Your task to perform on an android device: Search for the best-rated coffee table on Crate & Barrel Image 0: 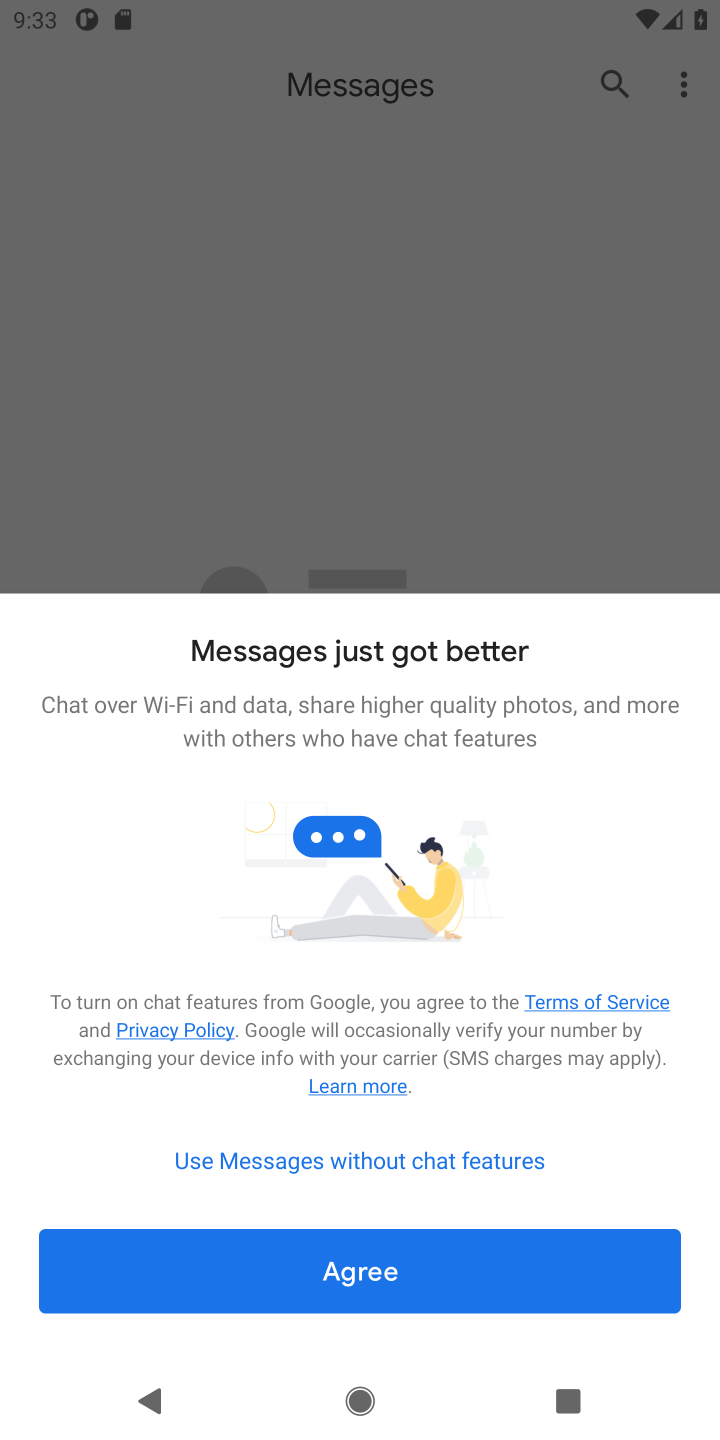
Step 0: press home button
Your task to perform on an android device: Search for the best-rated coffee table on Crate & Barrel Image 1: 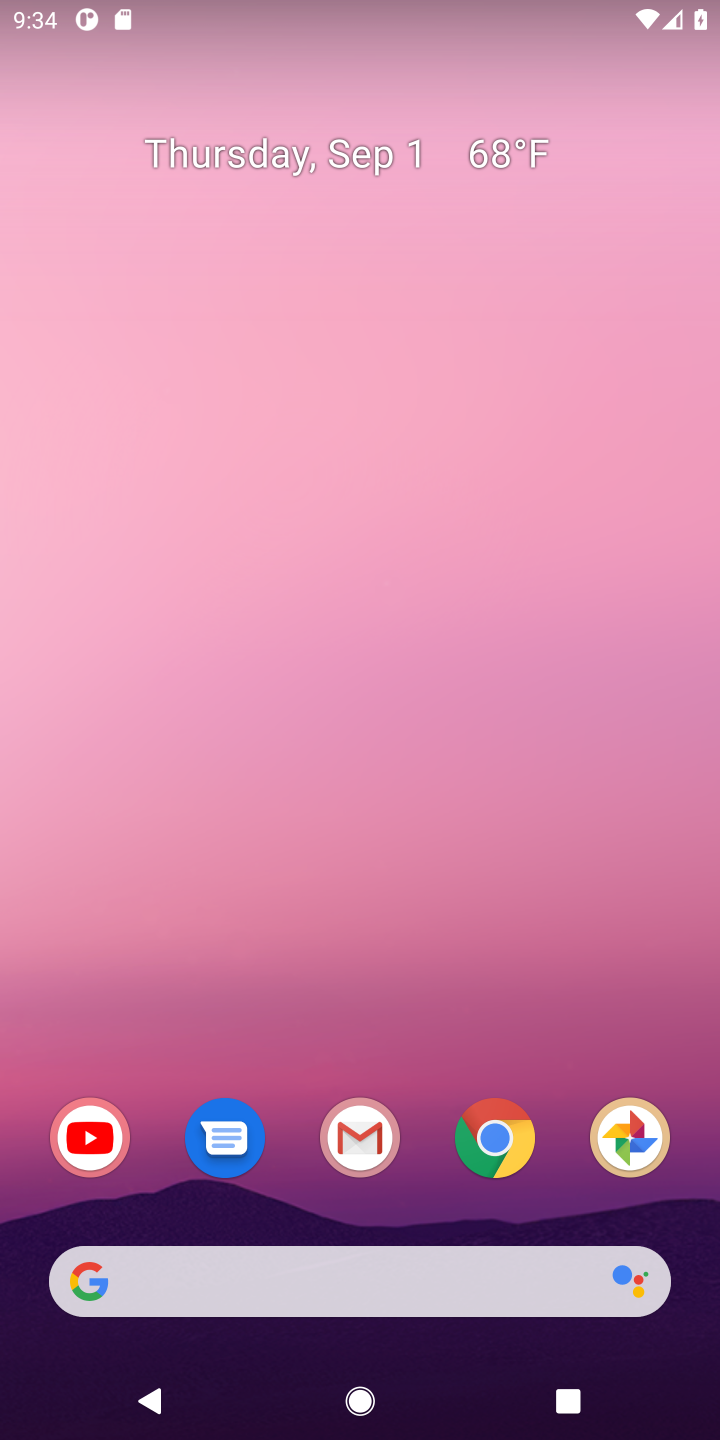
Step 1: click (504, 1133)
Your task to perform on an android device: Search for the best-rated coffee table on Crate & Barrel Image 2: 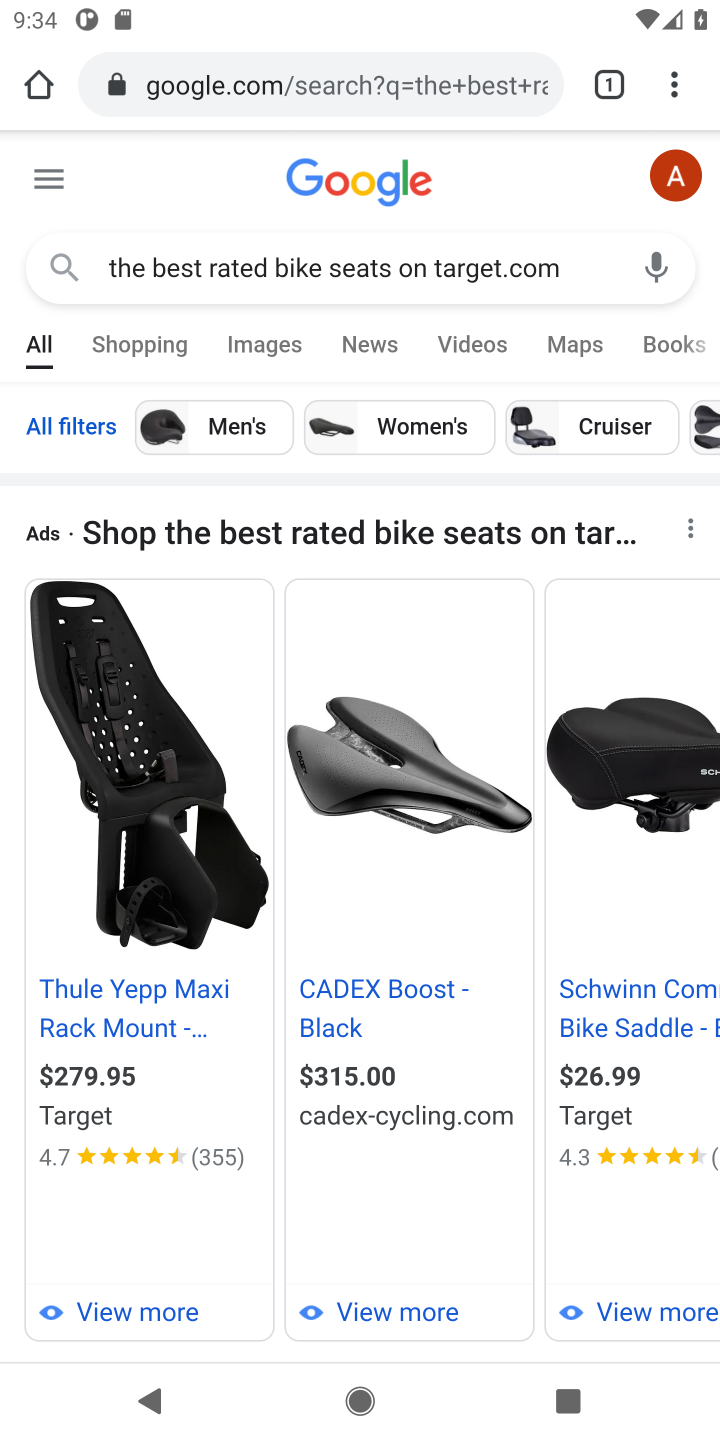
Step 2: click (104, 338)
Your task to perform on an android device: Search for the best-rated coffee table on Crate & Barrel Image 3: 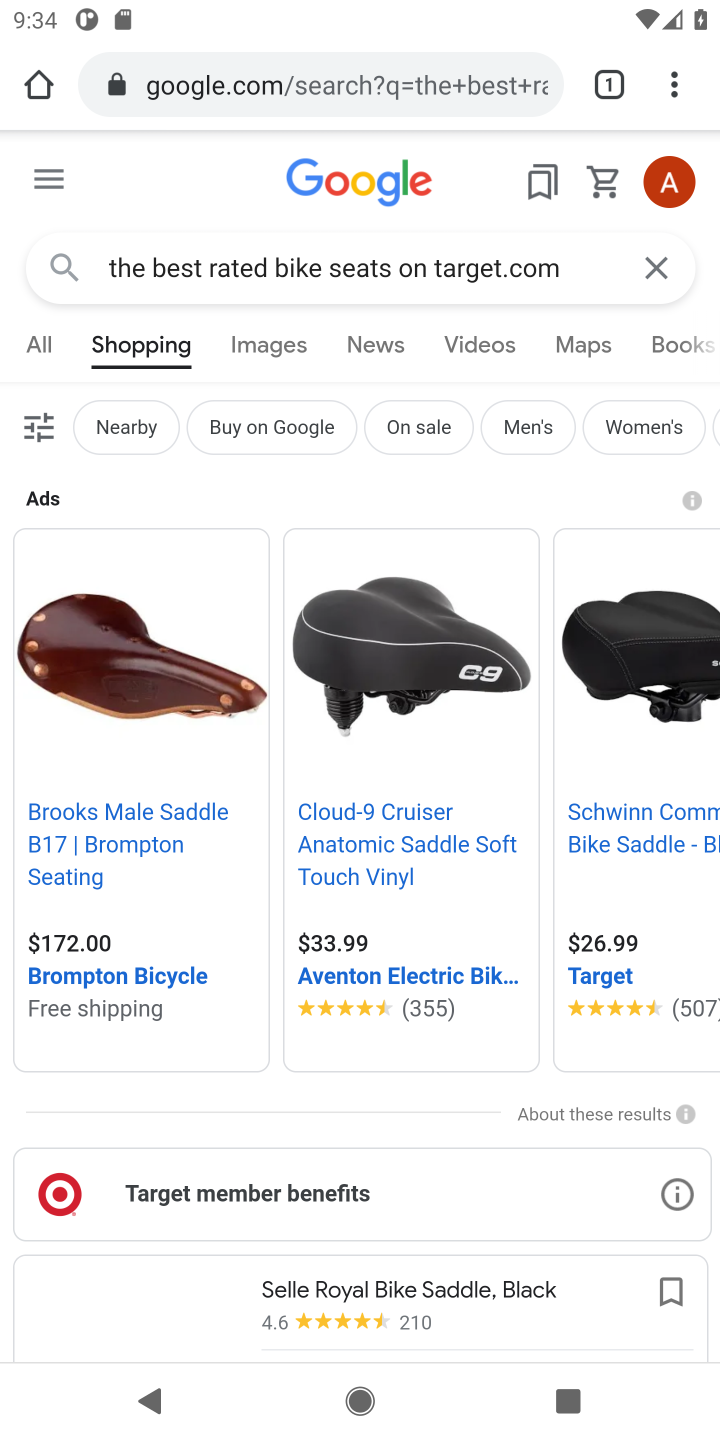
Step 3: click (653, 273)
Your task to perform on an android device: Search for the best-rated coffee table on Crate & Barrel Image 4: 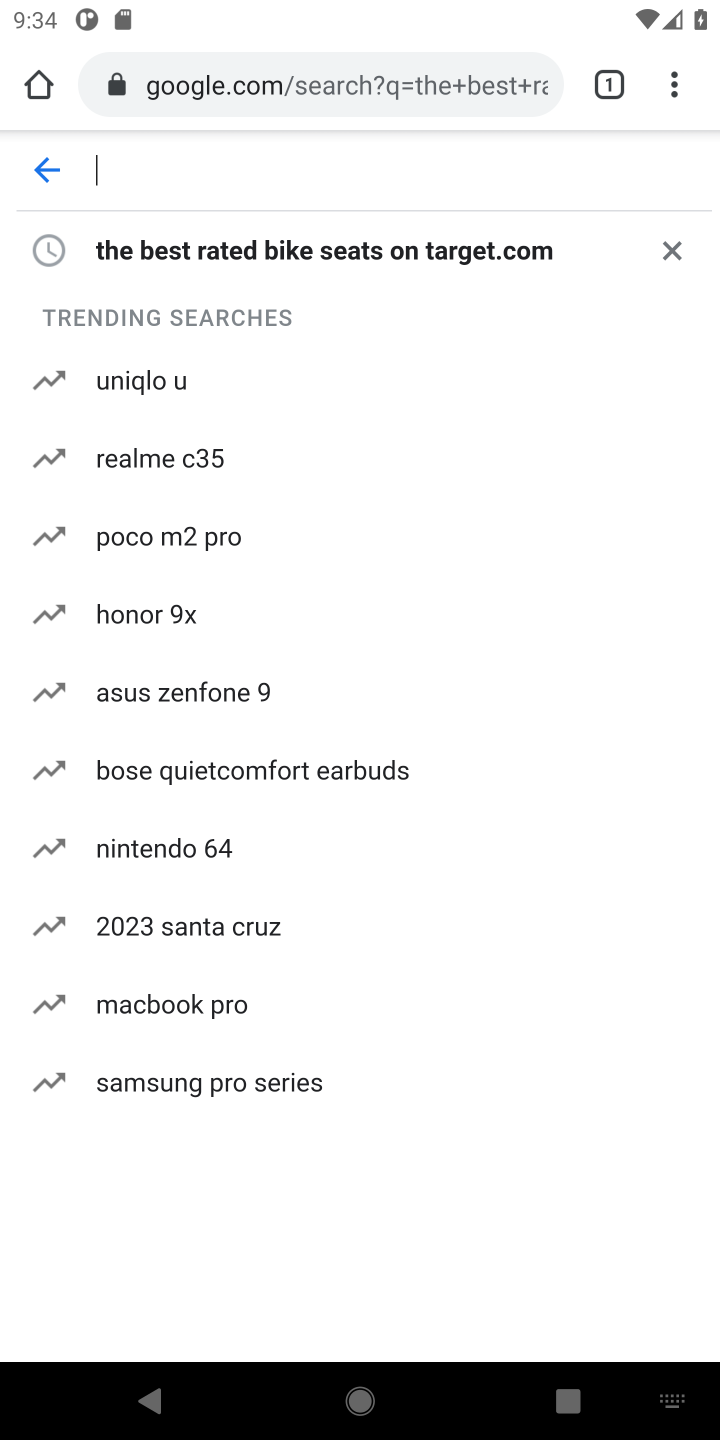
Step 4: click (265, 75)
Your task to perform on an android device: Search for the best-rated coffee table on Crate & Barrel Image 5: 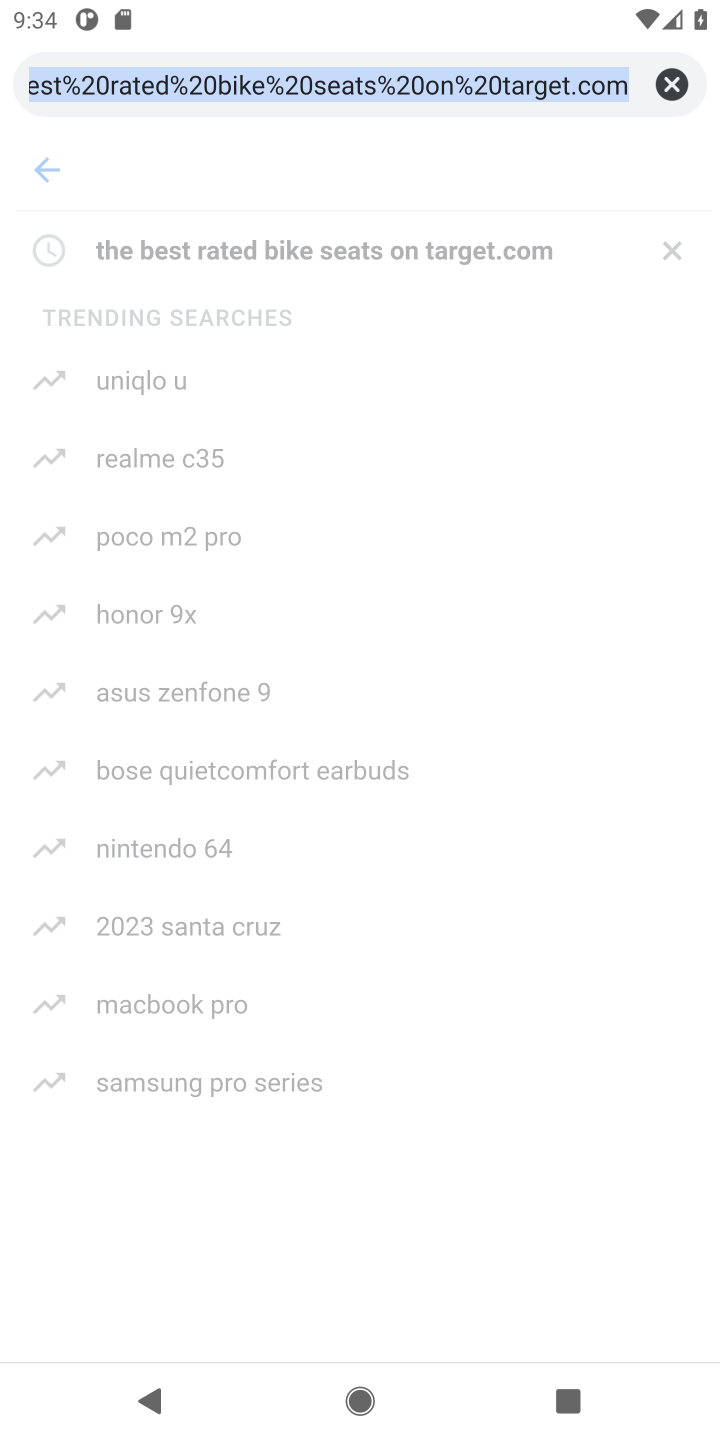
Step 5: type "the best-rated coffee table on Crate & Barrel"
Your task to perform on an android device: Search for the best-rated coffee table on Crate & Barrel Image 6: 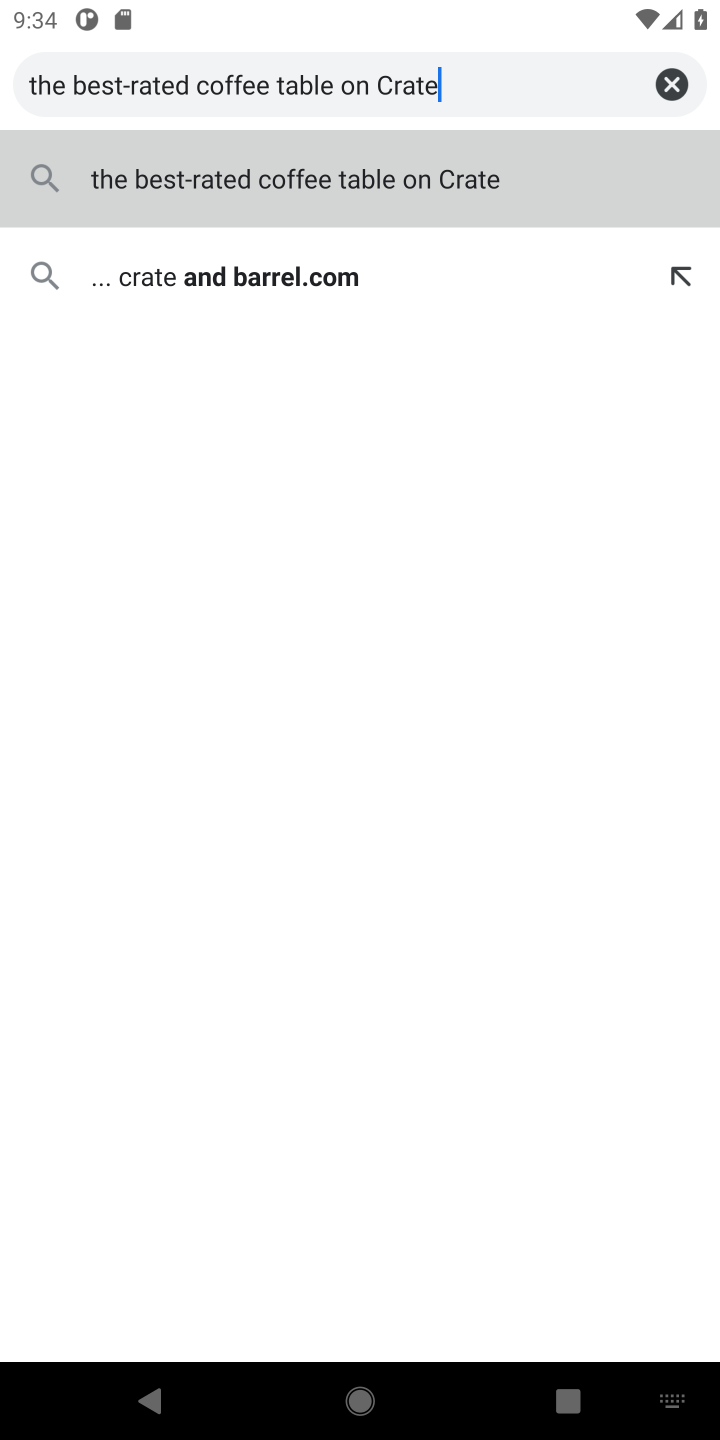
Step 6: click (187, 284)
Your task to perform on an android device: Search for the best-rated coffee table on Crate & Barrel Image 7: 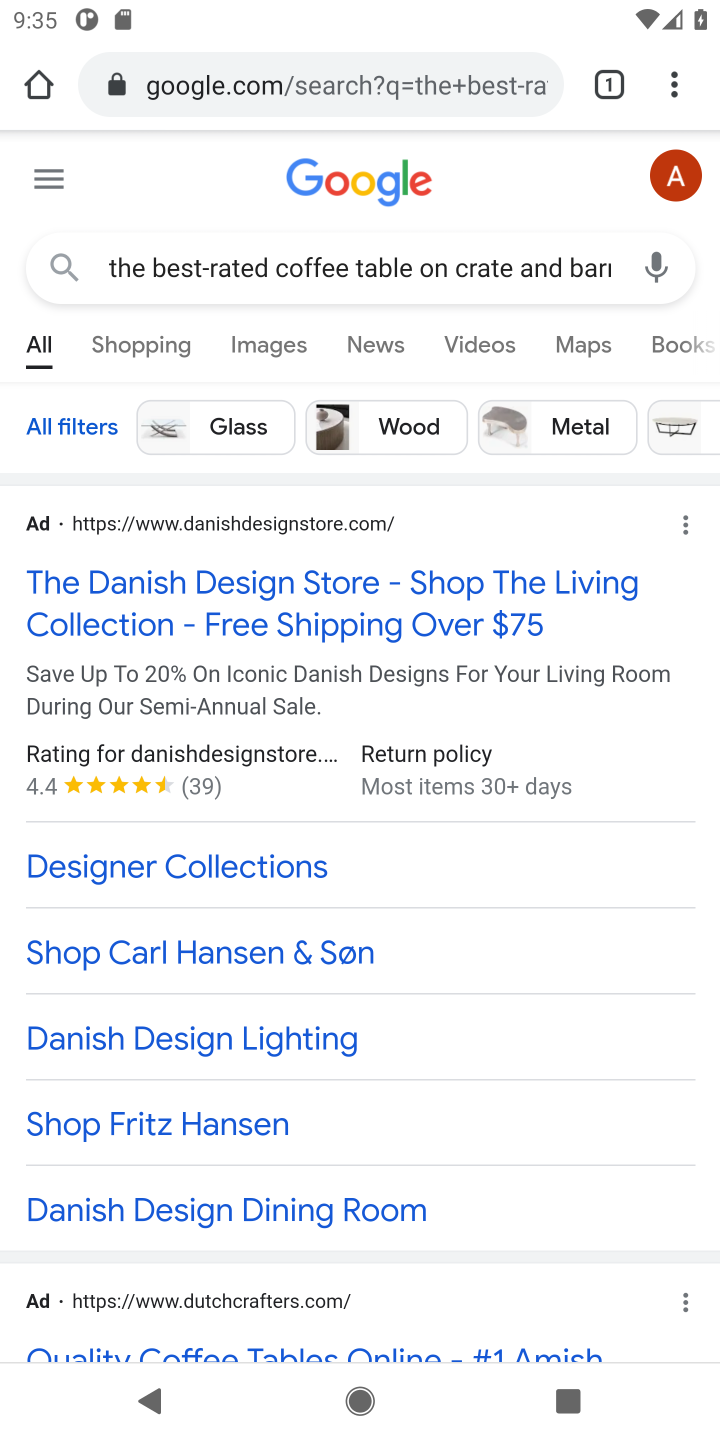
Step 7: click (406, 585)
Your task to perform on an android device: Search for the best-rated coffee table on Crate & Barrel Image 8: 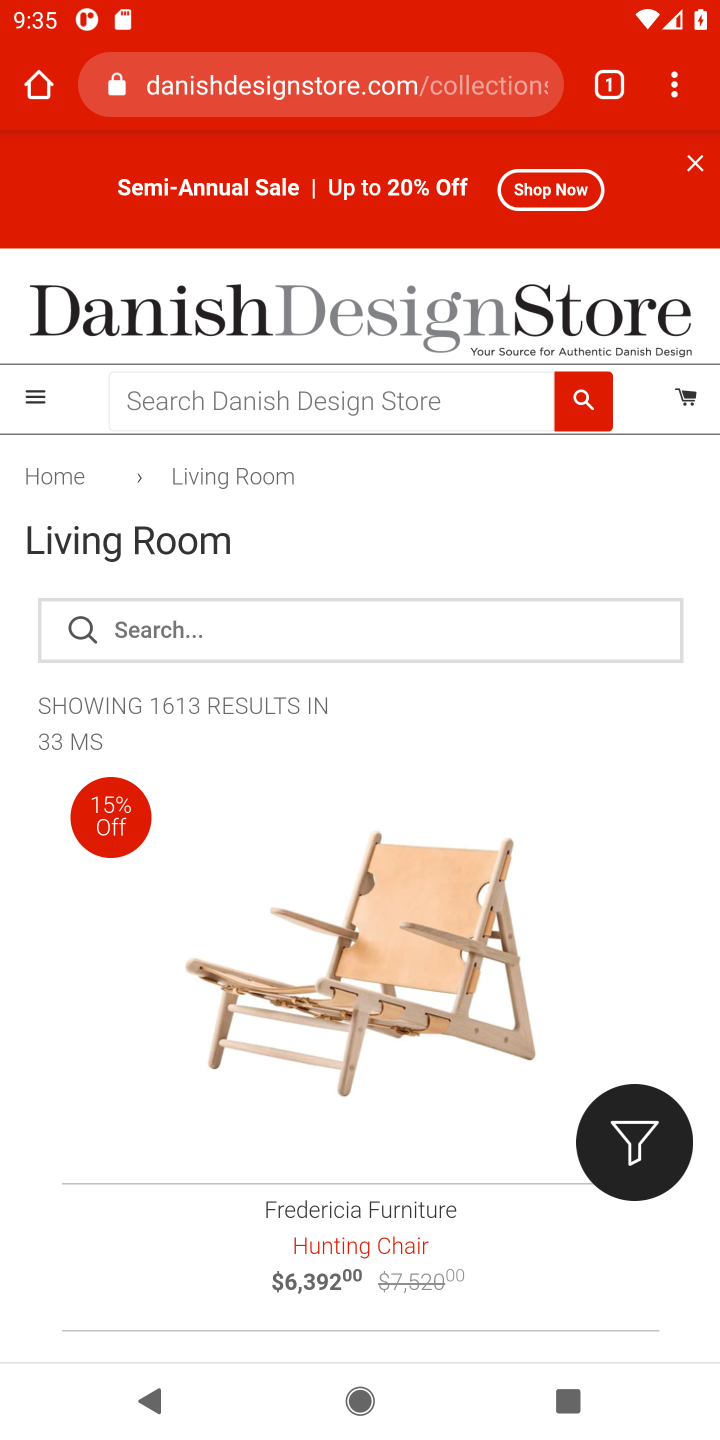
Step 8: task complete